Your task to perform on an android device: turn off picture-in-picture Image 0: 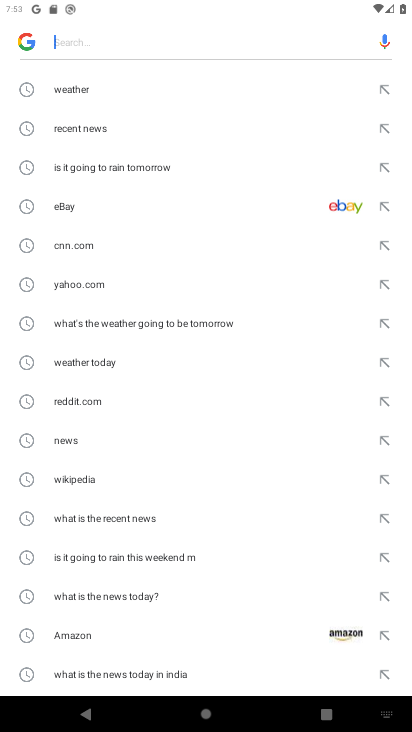
Step 0: press back button
Your task to perform on an android device: turn off picture-in-picture Image 1: 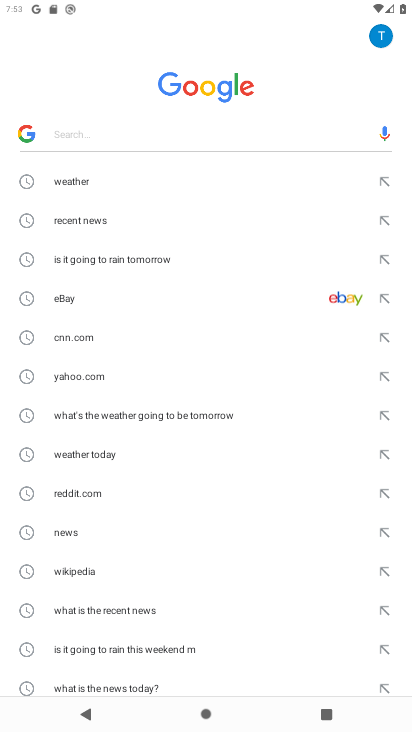
Step 1: press back button
Your task to perform on an android device: turn off picture-in-picture Image 2: 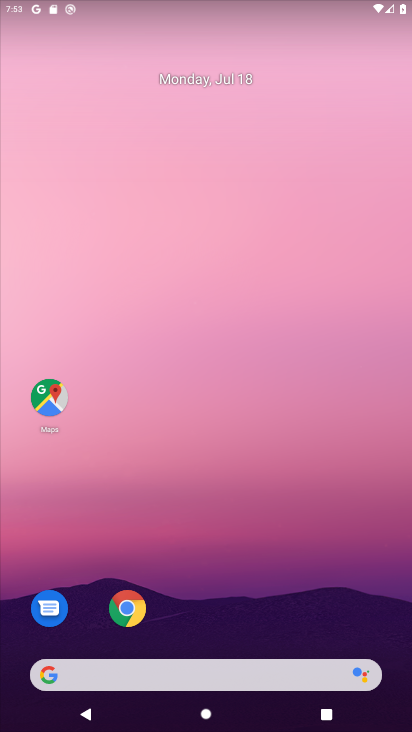
Step 2: drag from (186, 631) to (90, 49)
Your task to perform on an android device: turn off picture-in-picture Image 3: 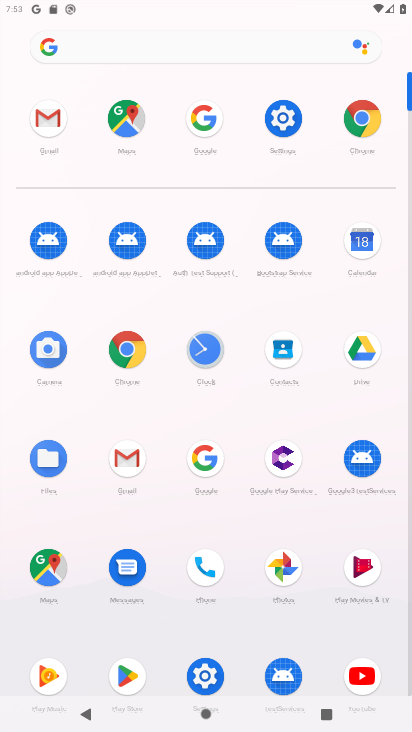
Step 3: click (290, 110)
Your task to perform on an android device: turn off picture-in-picture Image 4: 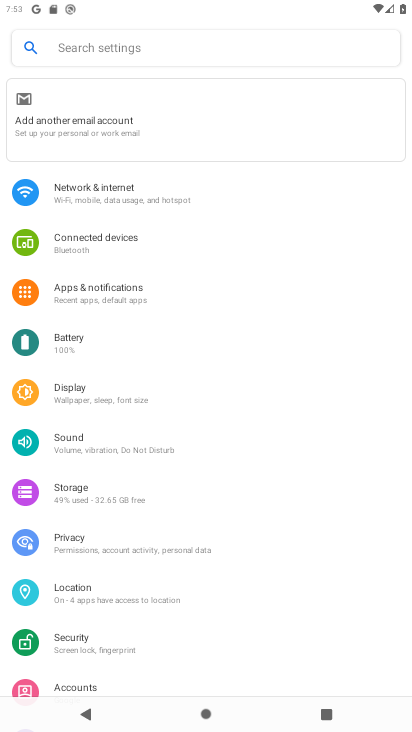
Step 4: click (136, 293)
Your task to perform on an android device: turn off picture-in-picture Image 5: 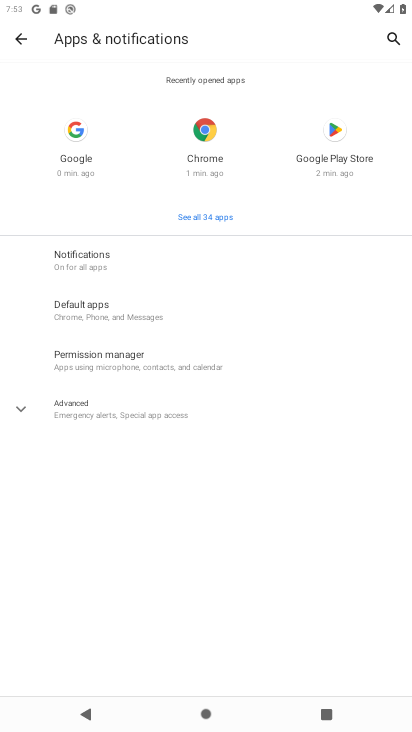
Step 5: click (85, 420)
Your task to perform on an android device: turn off picture-in-picture Image 6: 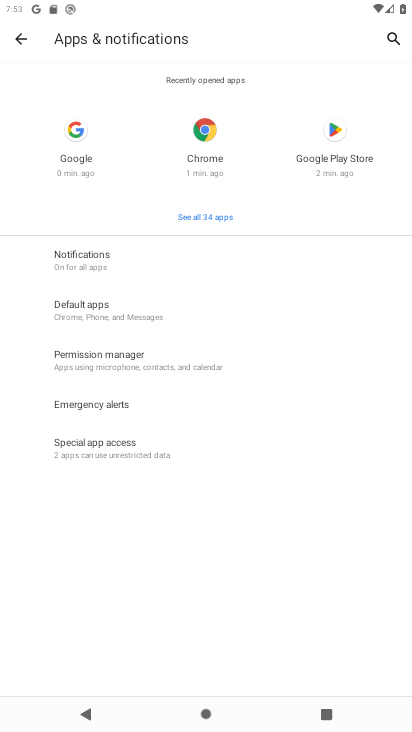
Step 6: click (129, 450)
Your task to perform on an android device: turn off picture-in-picture Image 7: 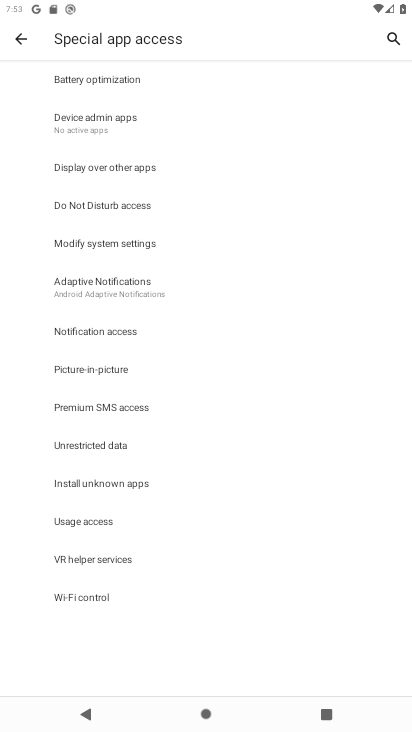
Step 7: click (87, 369)
Your task to perform on an android device: turn off picture-in-picture Image 8: 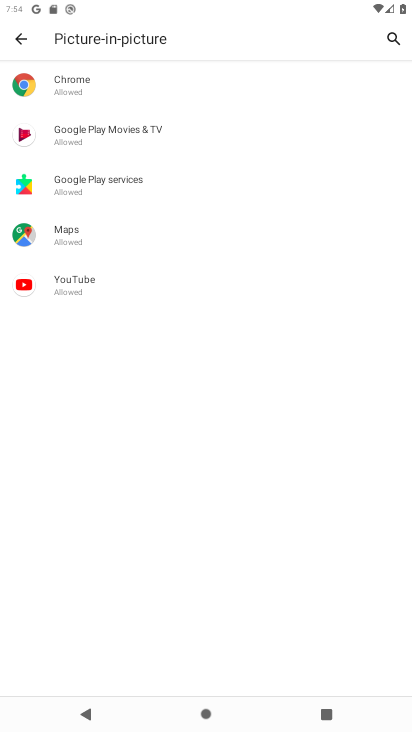
Step 8: task complete